Your task to perform on an android device: Open CNN.com Image 0: 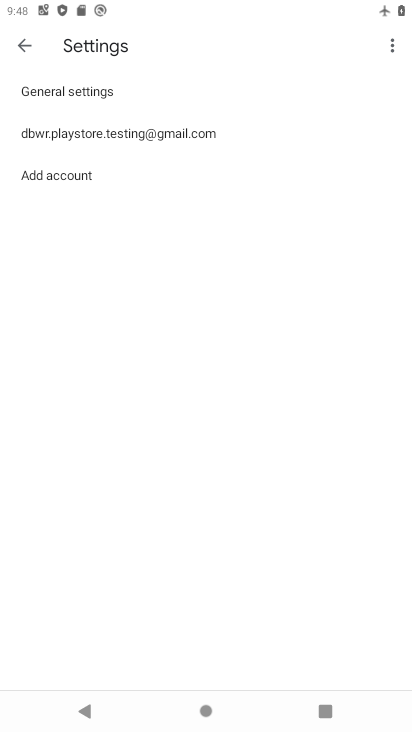
Step 0: press home button
Your task to perform on an android device: Open CNN.com Image 1: 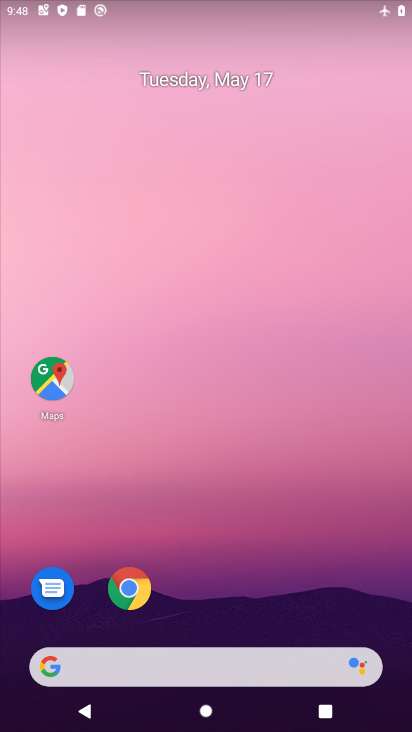
Step 1: click (140, 590)
Your task to perform on an android device: Open CNN.com Image 2: 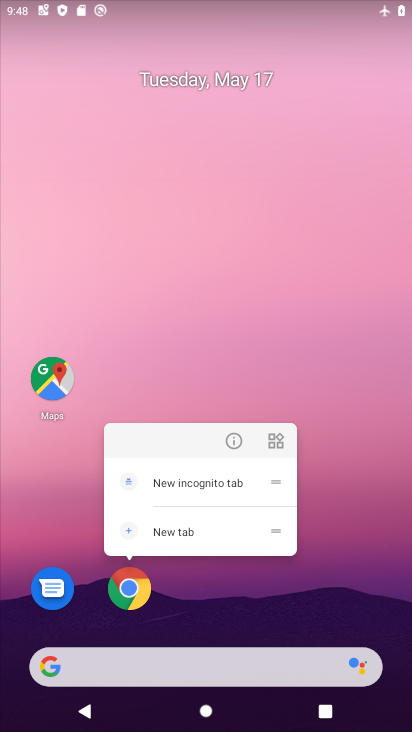
Step 2: click (126, 597)
Your task to perform on an android device: Open CNN.com Image 3: 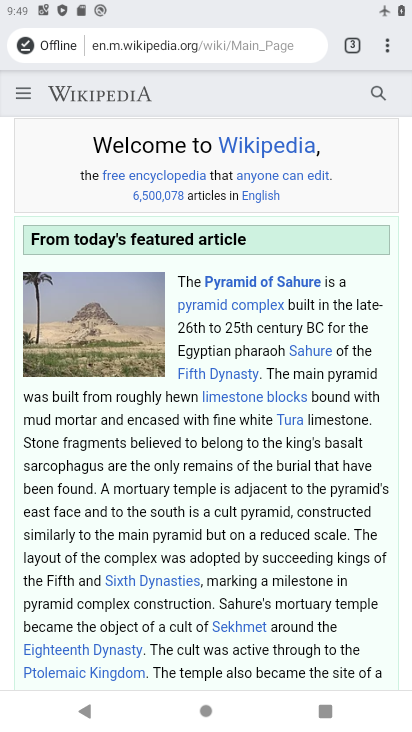
Step 3: click (357, 51)
Your task to perform on an android device: Open CNN.com Image 4: 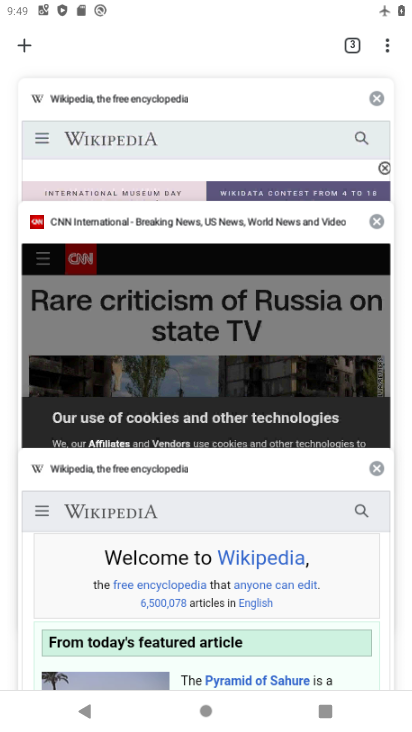
Step 4: click (30, 36)
Your task to perform on an android device: Open CNN.com Image 5: 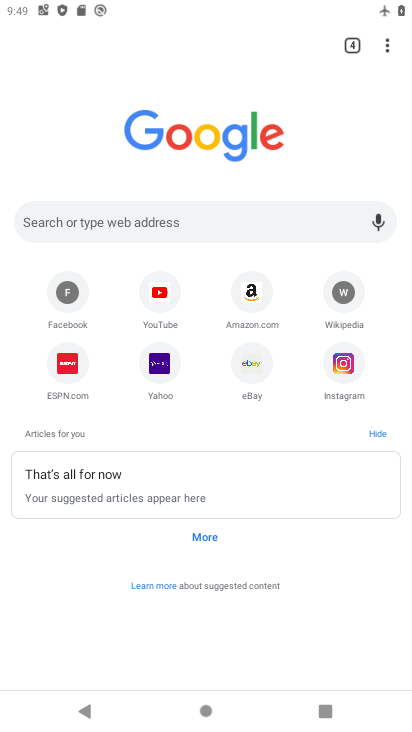
Step 5: click (233, 221)
Your task to perform on an android device: Open CNN.com Image 6: 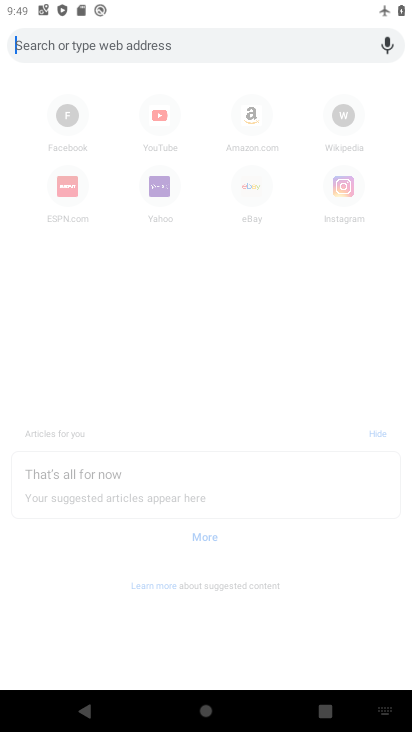
Step 6: type "cnn"
Your task to perform on an android device: Open CNN.com Image 7: 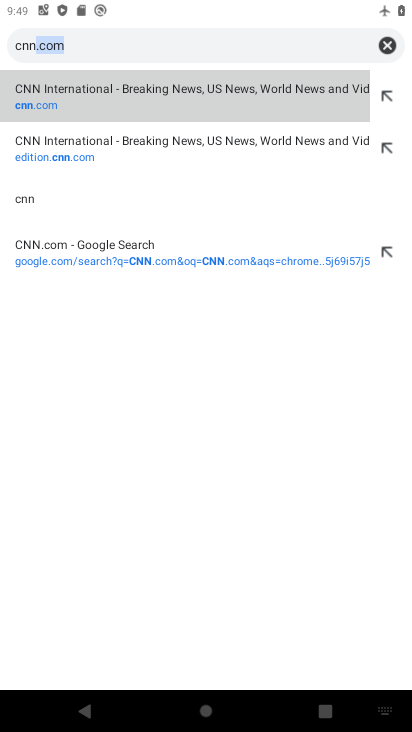
Step 7: click (127, 103)
Your task to perform on an android device: Open CNN.com Image 8: 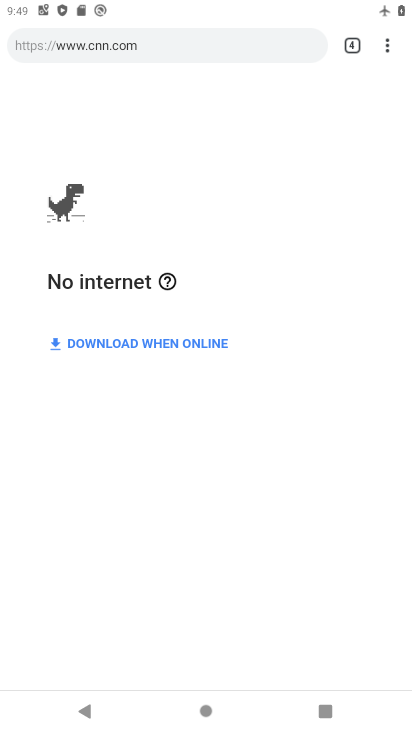
Step 8: task complete